Your task to perform on an android device: turn on the 24-hour format for clock Image 0: 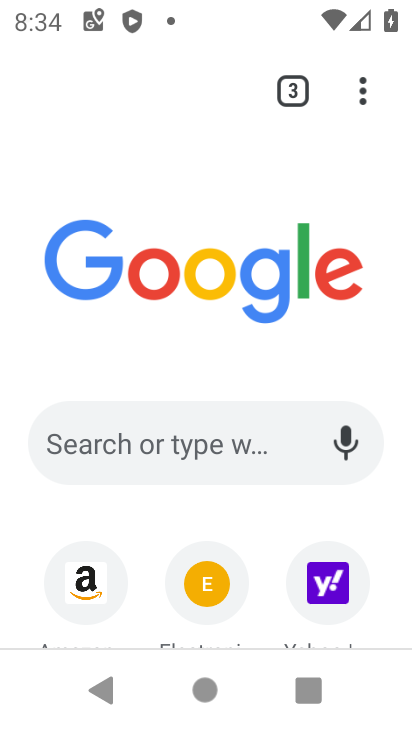
Step 0: press home button
Your task to perform on an android device: turn on the 24-hour format for clock Image 1: 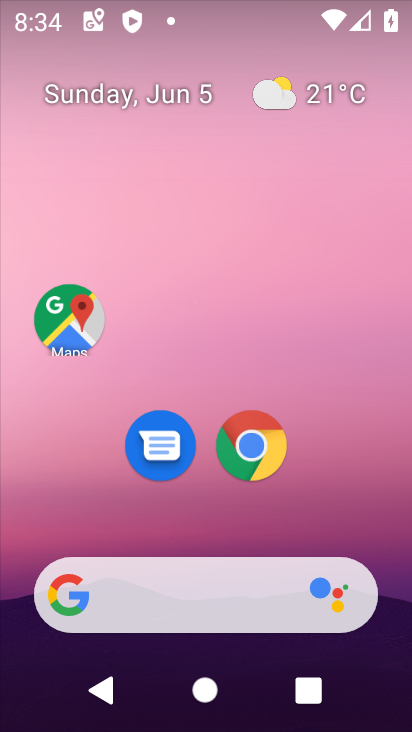
Step 1: drag from (322, 505) to (348, 205)
Your task to perform on an android device: turn on the 24-hour format for clock Image 2: 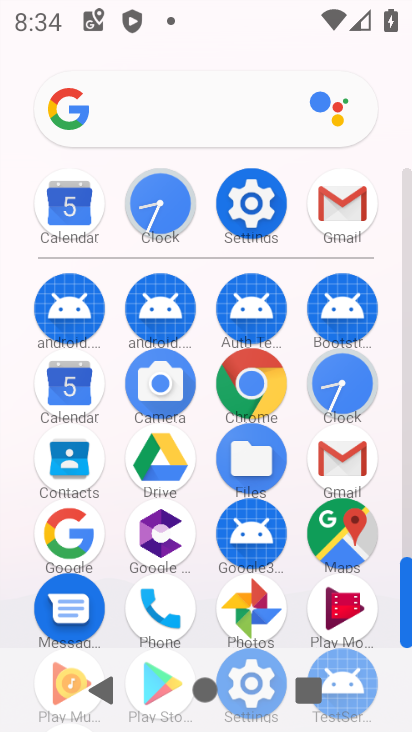
Step 2: click (158, 206)
Your task to perform on an android device: turn on the 24-hour format for clock Image 3: 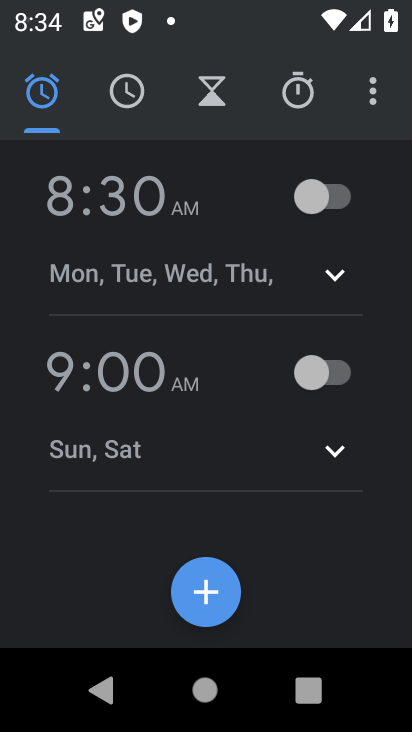
Step 3: click (376, 93)
Your task to perform on an android device: turn on the 24-hour format for clock Image 4: 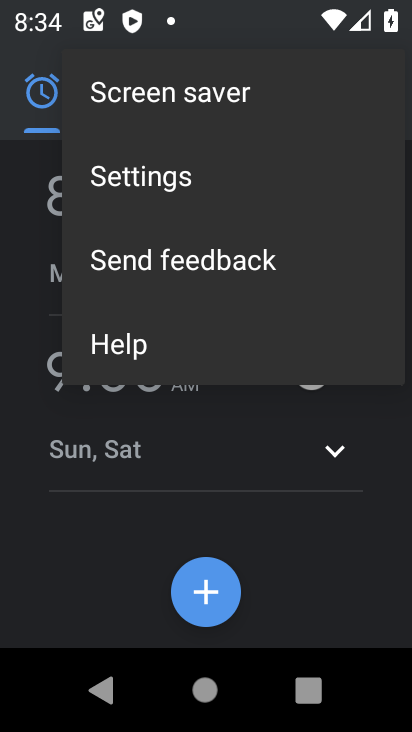
Step 4: click (120, 174)
Your task to perform on an android device: turn on the 24-hour format for clock Image 5: 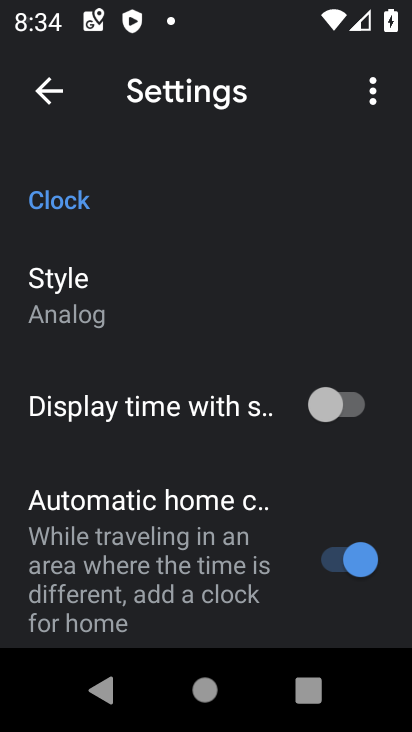
Step 5: drag from (117, 428) to (132, 131)
Your task to perform on an android device: turn on the 24-hour format for clock Image 6: 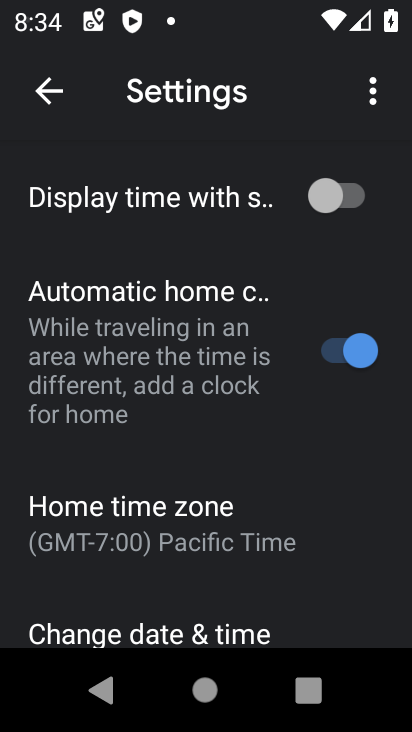
Step 6: drag from (264, 581) to (249, 211)
Your task to perform on an android device: turn on the 24-hour format for clock Image 7: 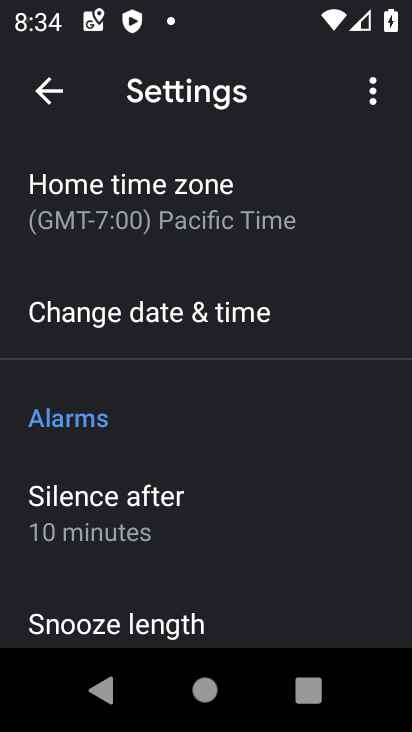
Step 7: click (202, 323)
Your task to perform on an android device: turn on the 24-hour format for clock Image 8: 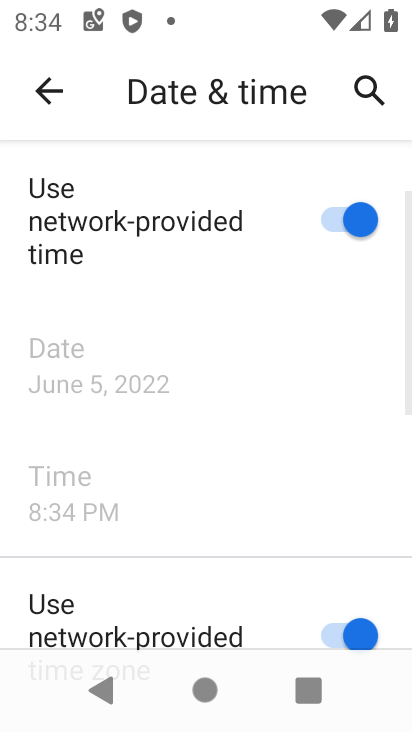
Step 8: drag from (195, 556) to (244, 177)
Your task to perform on an android device: turn on the 24-hour format for clock Image 9: 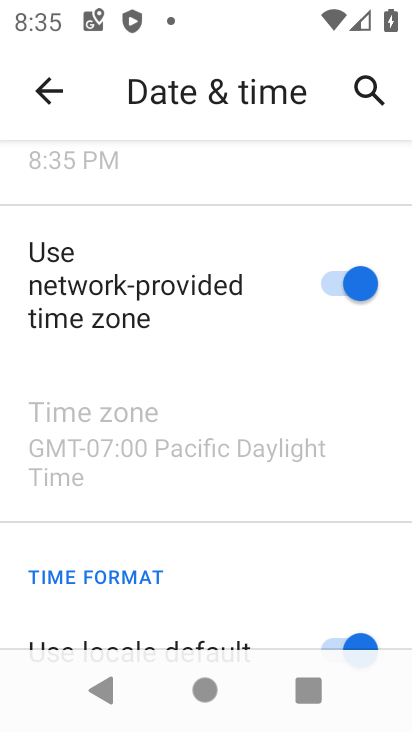
Step 9: drag from (161, 508) to (220, 212)
Your task to perform on an android device: turn on the 24-hour format for clock Image 10: 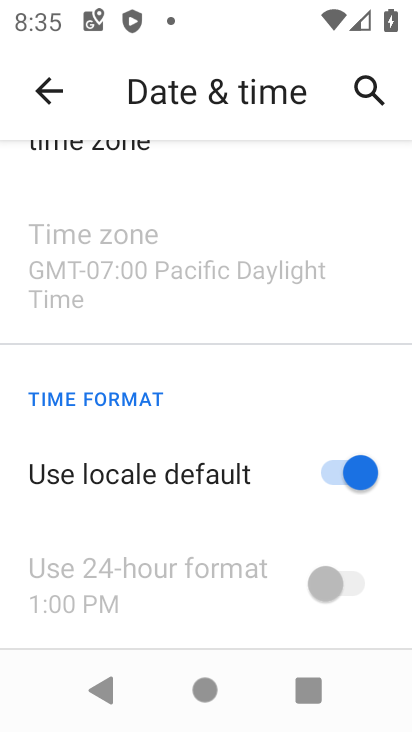
Step 10: click (337, 467)
Your task to perform on an android device: turn on the 24-hour format for clock Image 11: 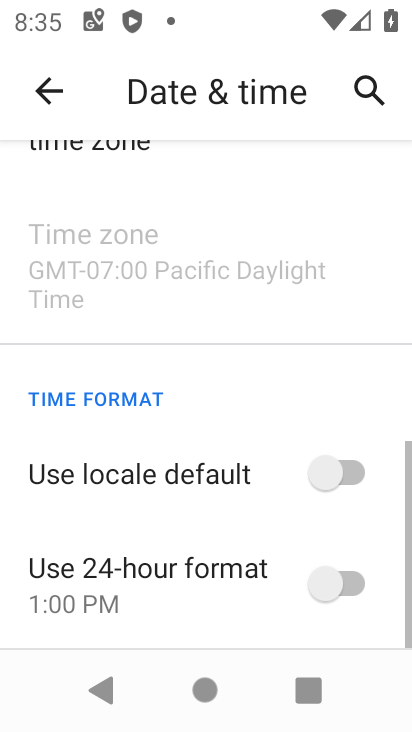
Step 11: click (339, 574)
Your task to perform on an android device: turn on the 24-hour format for clock Image 12: 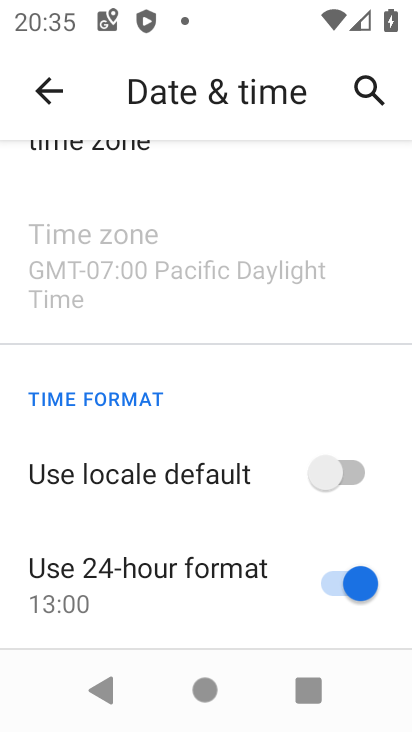
Step 12: task complete